Your task to perform on an android device: turn off location Image 0: 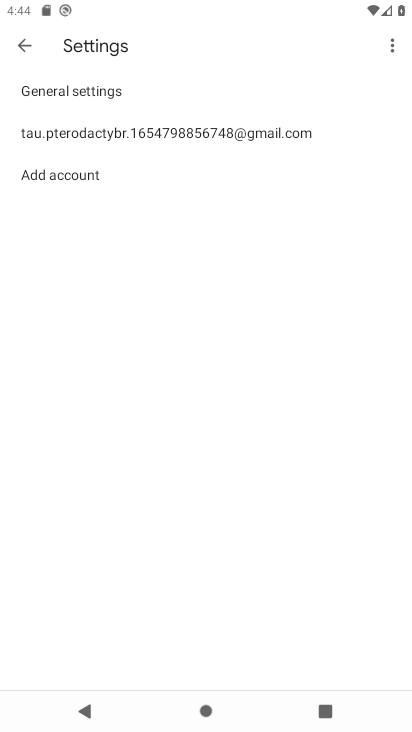
Step 0: click (27, 40)
Your task to perform on an android device: turn off location Image 1: 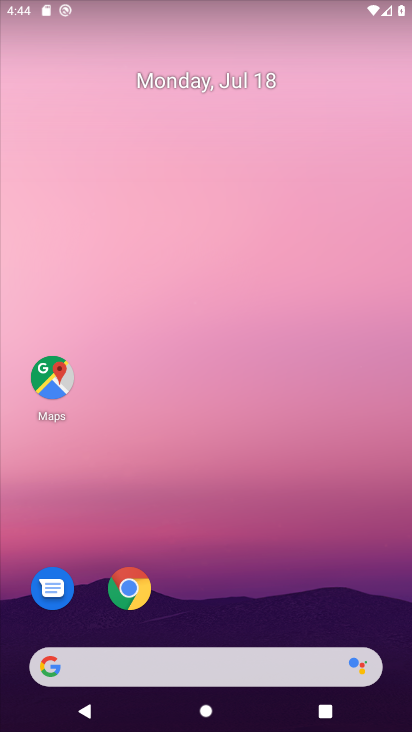
Step 1: drag from (233, 716) to (115, 131)
Your task to perform on an android device: turn off location Image 2: 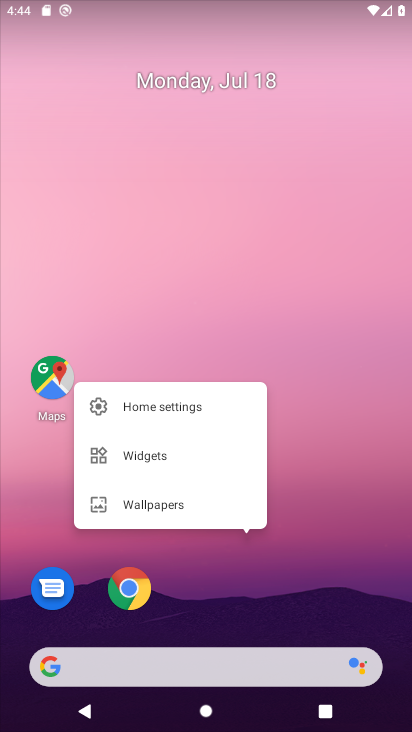
Step 2: click (178, 169)
Your task to perform on an android device: turn off location Image 3: 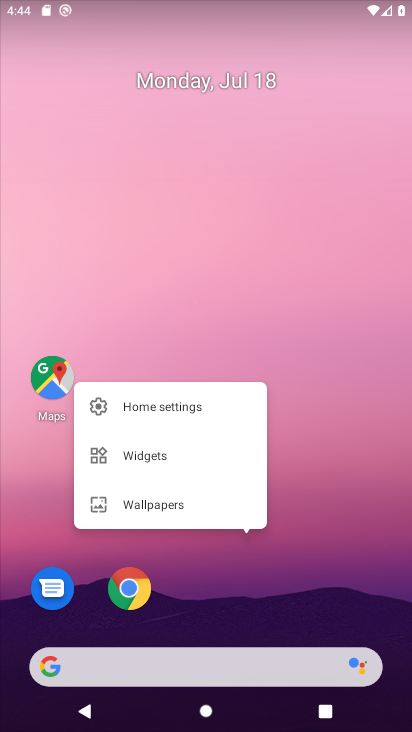
Step 3: click (235, 249)
Your task to perform on an android device: turn off location Image 4: 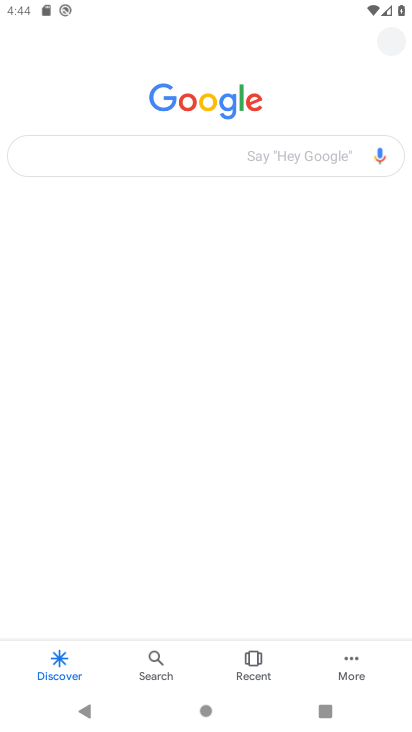
Step 4: press back button
Your task to perform on an android device: turn off location Image 5: 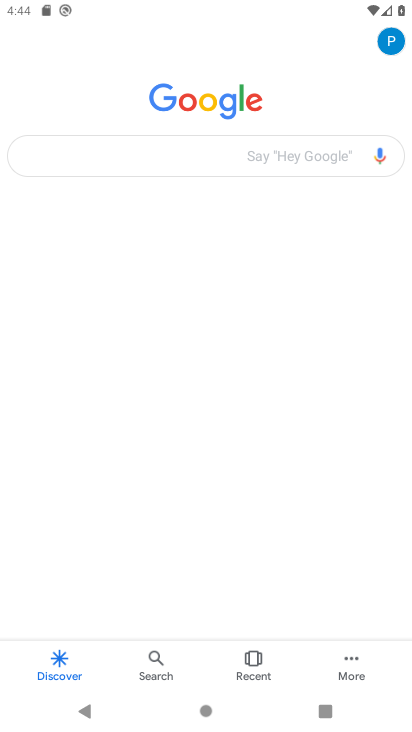
Step 5: press back button
Your task to perform on an android device: turn off location Image 6: 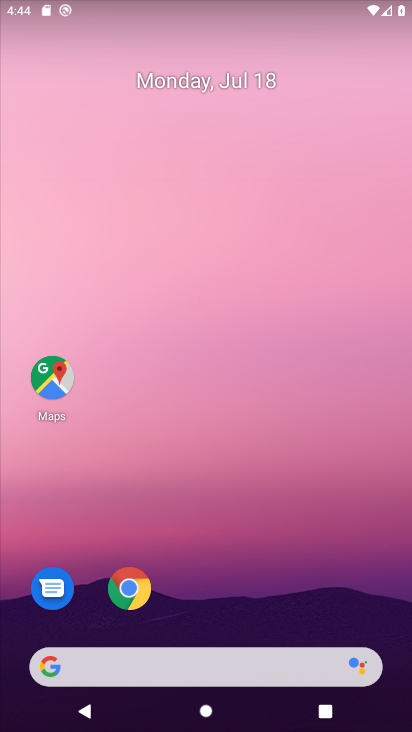
Step 6: press home button
Your task to perform on an android device: turn off location Image 7: 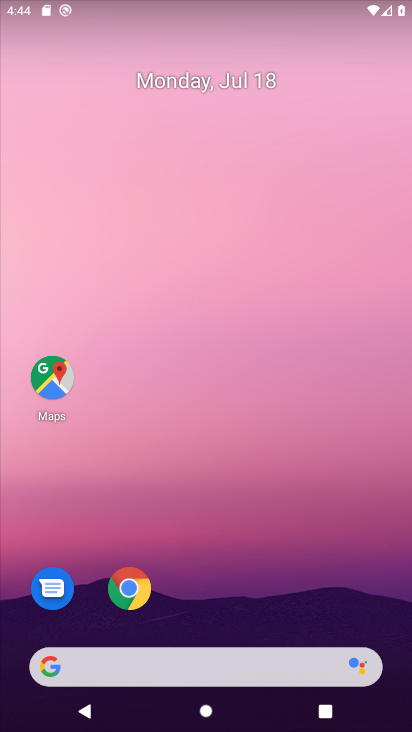
Step 7: click (238, 70)
Your task to perform on an android device: turn off location Image 8: 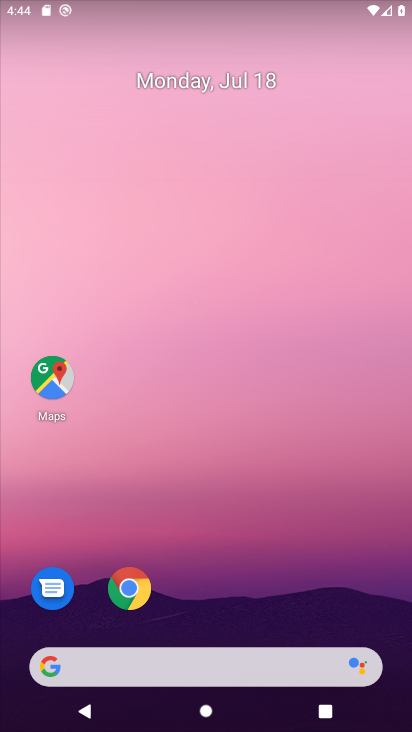
Step 8: drag from (233, 615) to (146, 132)
Your task to perform on an android device: turn off location Image 9: 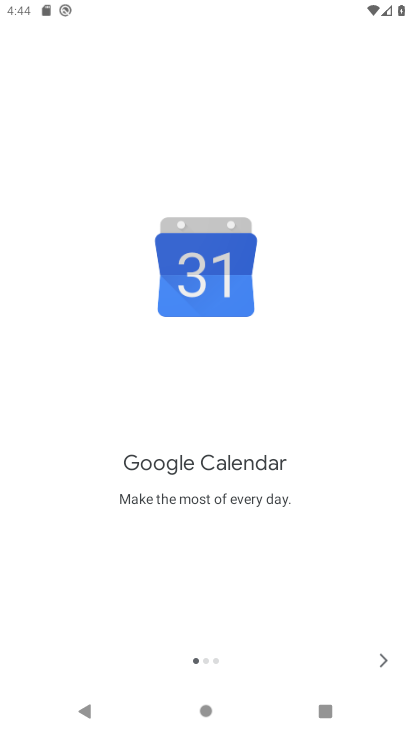
Step 9: click (379, 651)
Your task to perform on an android device: turn off location Image 10: 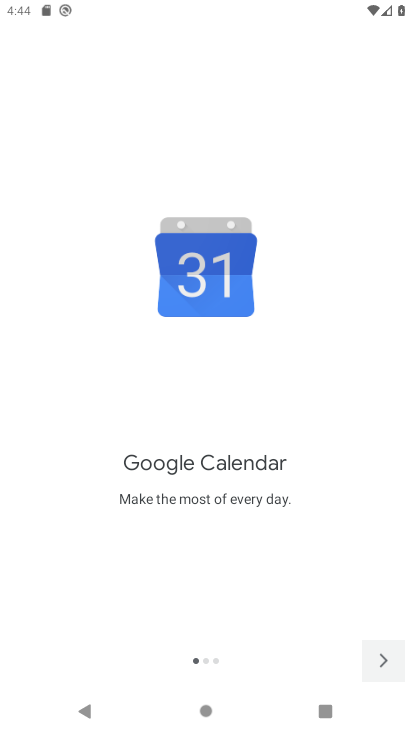
Step 10: click (384, 652)
Your task to perform on an android device: turn off location Image 11: 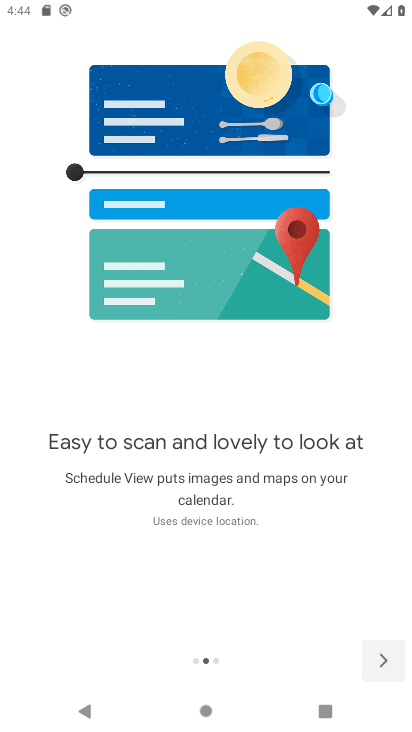
Step 11: click (384, 652)
Your task to perform on an android device: turn off location Image 12: 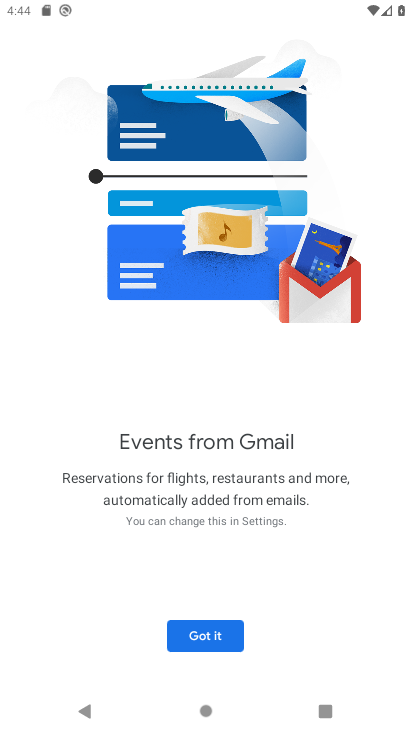
Step 12: click (384, 652)
Your task to perform on an android device: turn off location Image 13: 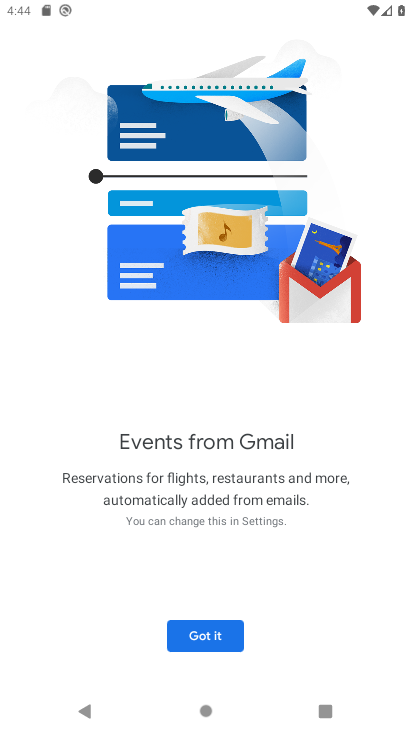
Step 13: click (384, 652)
Your task to perform on an android device: turn off location Image 14: 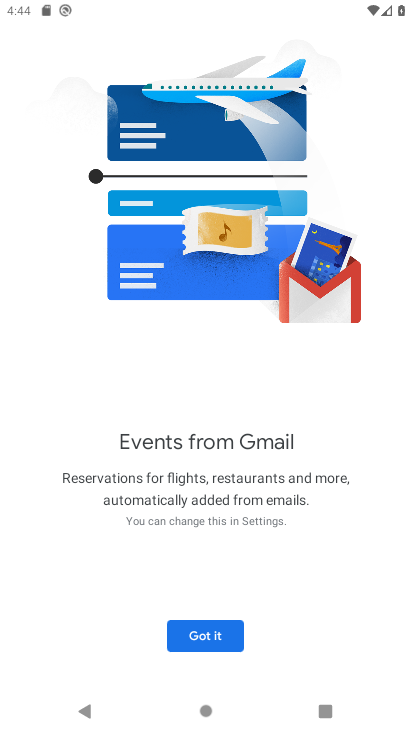
Step 14: click (222, 629)
Your task to perform on an android device: turn off location Image 15: 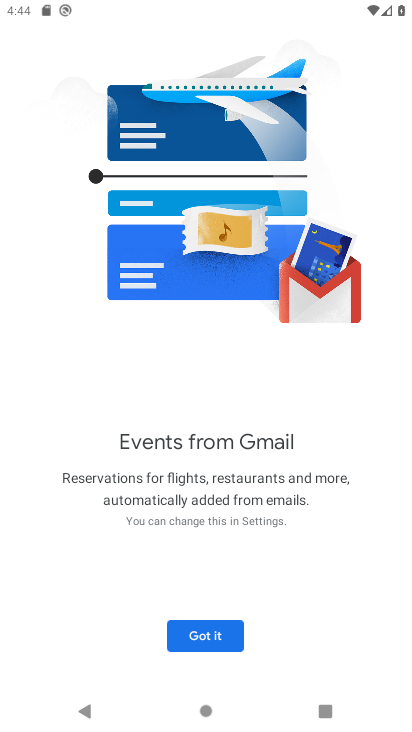
Step 15: click (210, 629)
Your task to perform on an android device: turn off location Image 16: 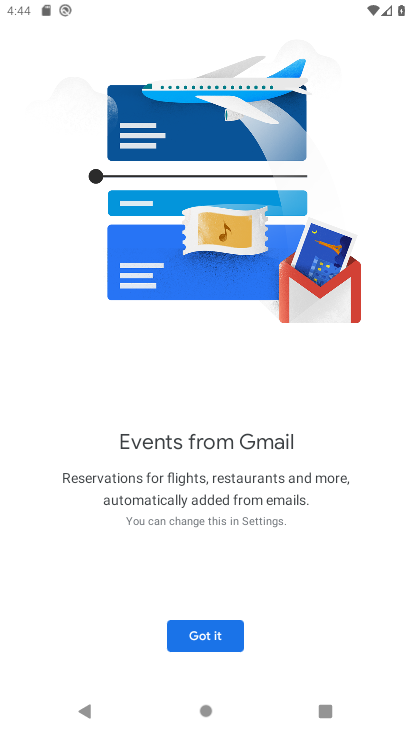
Step 16: click (210, 629)
Your task to perform on an android device: turn off location Image 17: 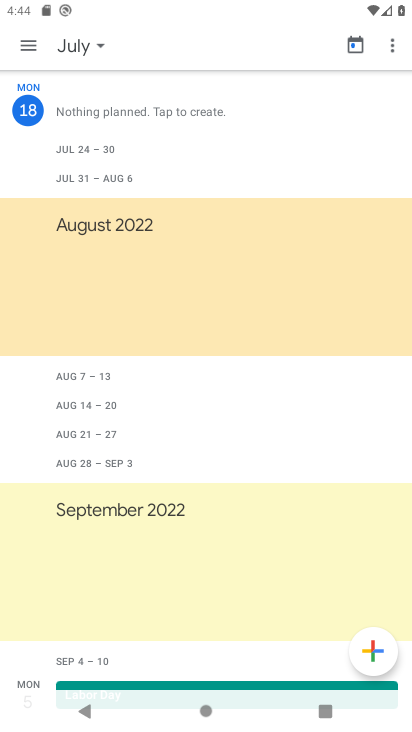
Step 17: press home button
Your task to perform on an android device: turn off location Image 18: 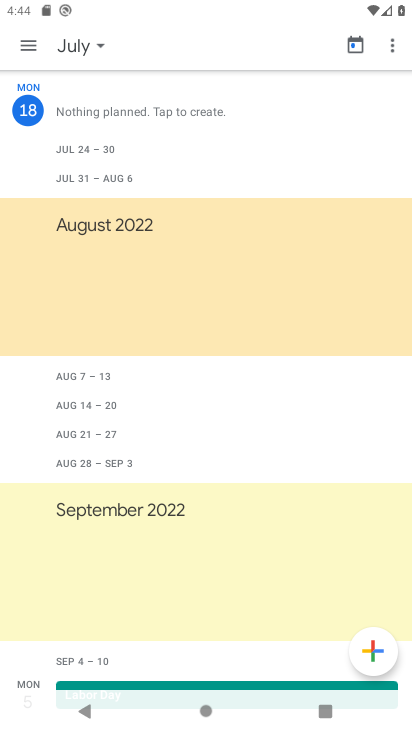
Step 18: press home button
Your task to perform on an android device: turn off location Image 19: 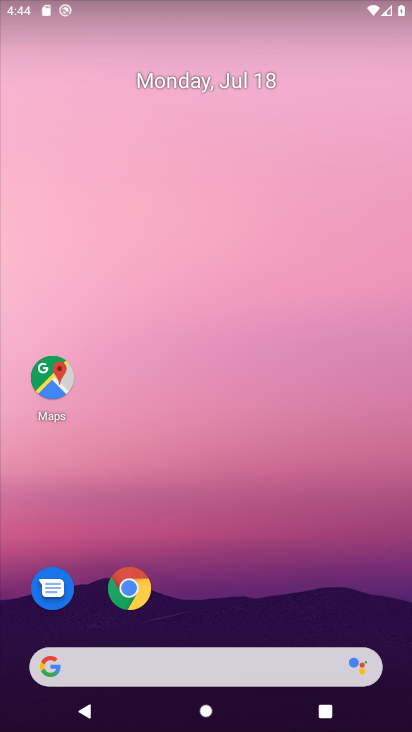
Step 19: press back button
Your task to perform on an android device: turn off location Image 20: 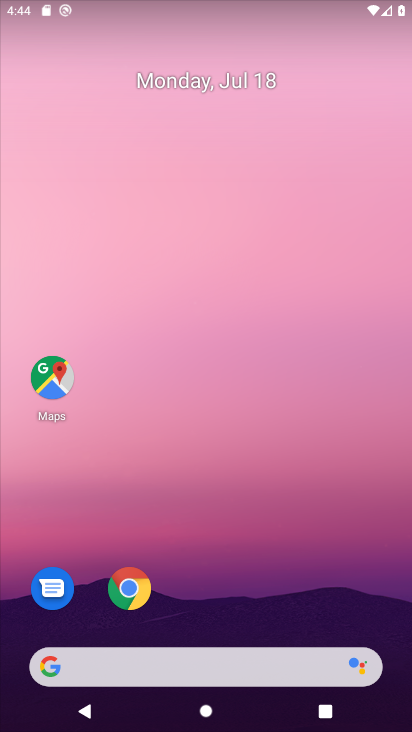
Step 20: drag from (230, 217) to (212, 59)
Your task to perform on an android device: turn off location Image 21: 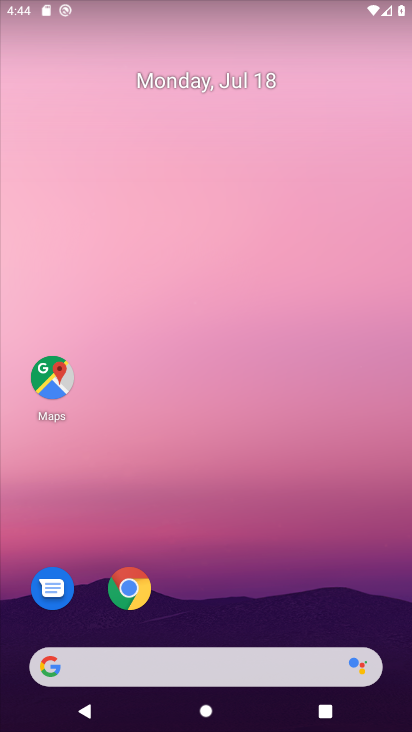
Step 21: drag from (222, 307) to (179, 27)
Your task to perform on an android device: turn off location Image 22: 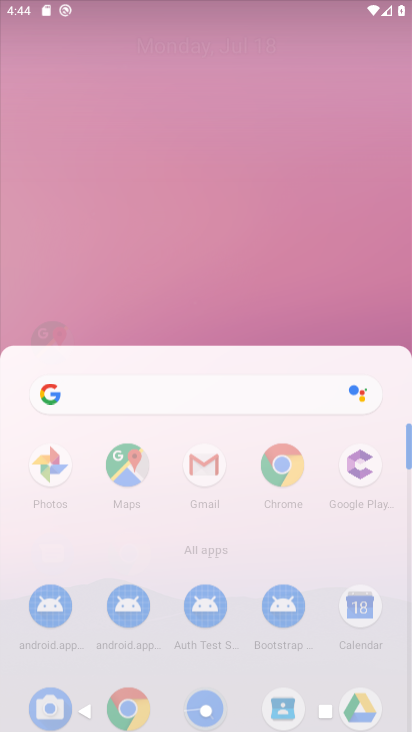
Step 22: click (226, 40)
Your task to perform on an android device: turn off location Image 23: 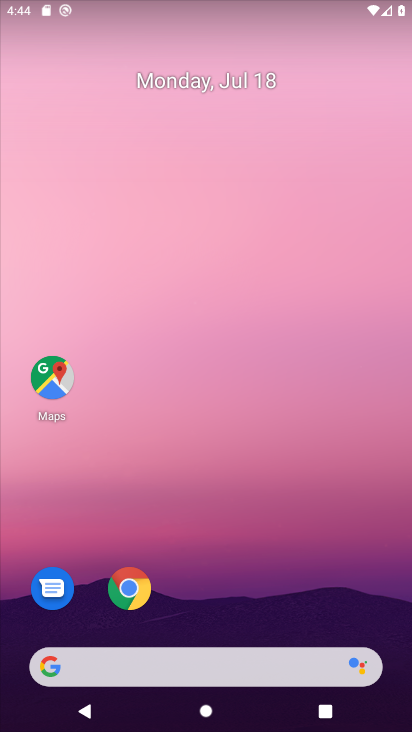
Step 23: drag from (256, 465) to (230, 16)
Your task to perform on an android device: turn off location Image 24: 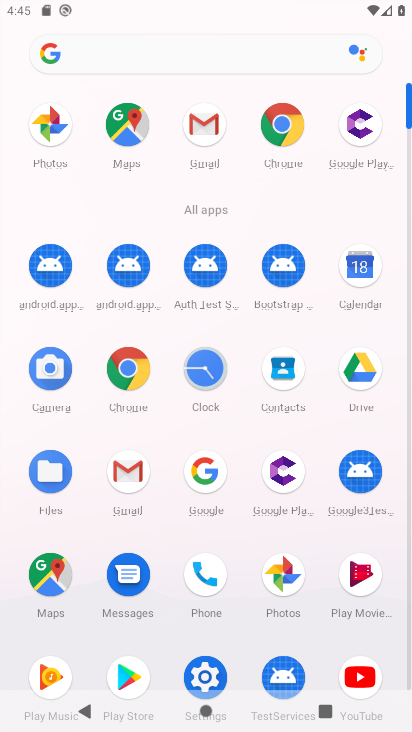
Step 24: click (195, 670)
Your task to perform on an android device: turn off location Image 25: 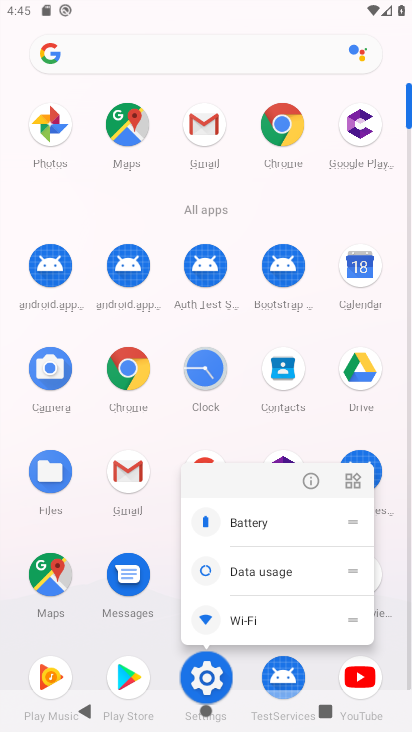
Step 25: click (198, 670)
Your task to perform on an android device: turn off location Image 26: 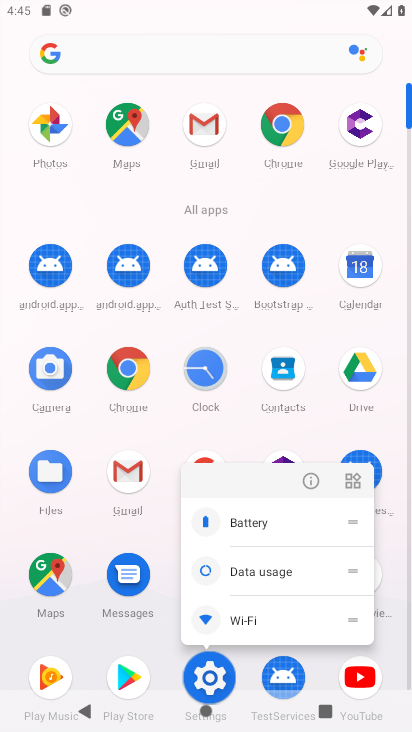
Step 26: click (200, 667)
Your task to perform on an android device: turn off location Image 27: 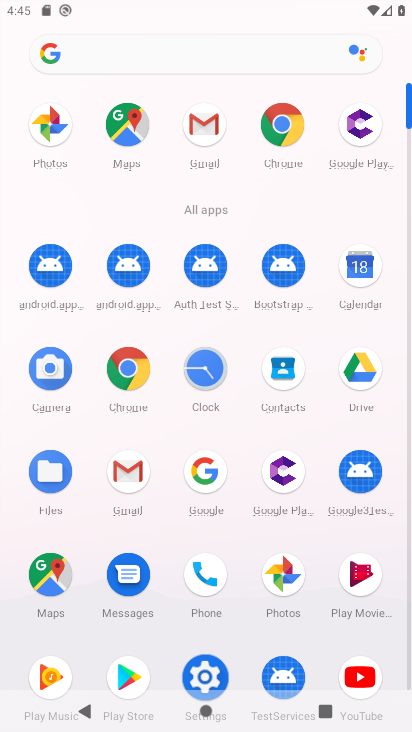
Step 27: click (201, 666)
Your task to perform on an android device: turn off location Image 28: 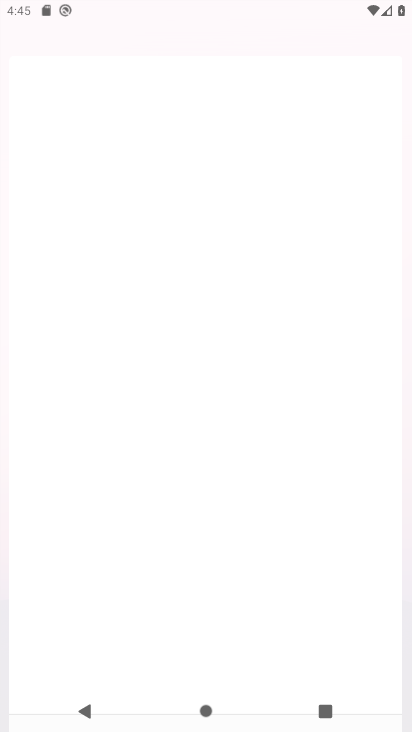
Step 28: click (205, 649)
Your task to perform on an android device: turn off location Image 29: 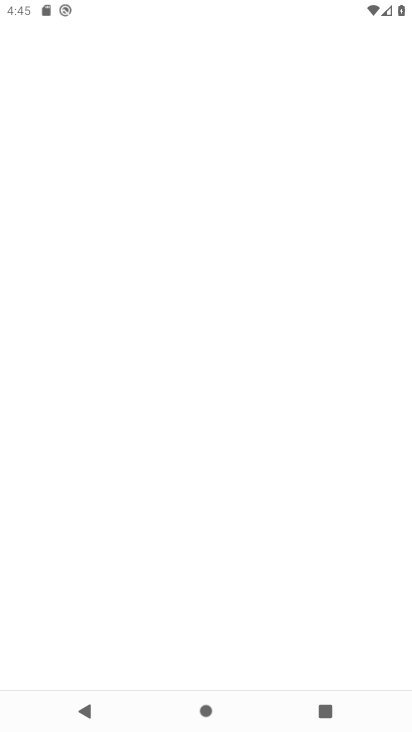
Step 29: click (203, 656)
Your task to perform on an android device: turn off location Image 30: 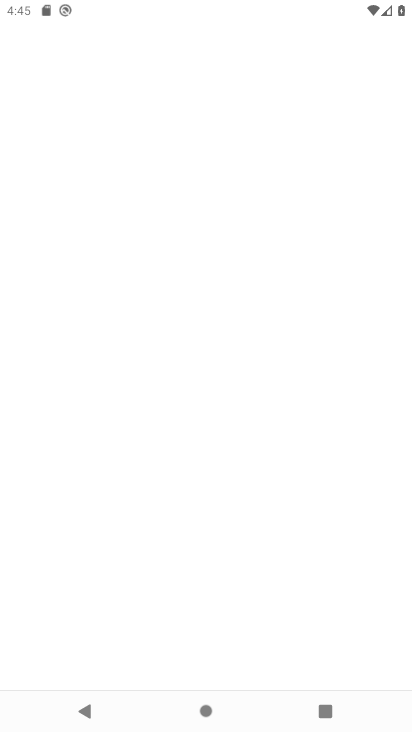
Step 30: click (203, 656)
Your task to perform on an android device: turn off location Image 31: 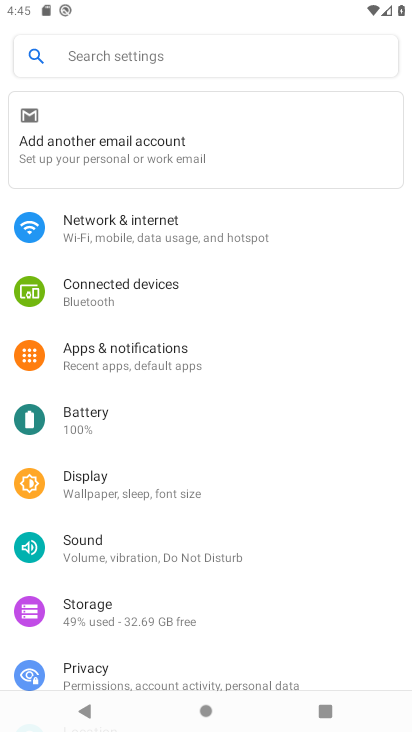
Step 31: drag from (66, 610) to (83, 183)
Your task to perform on an android device: turn off location Image 32: 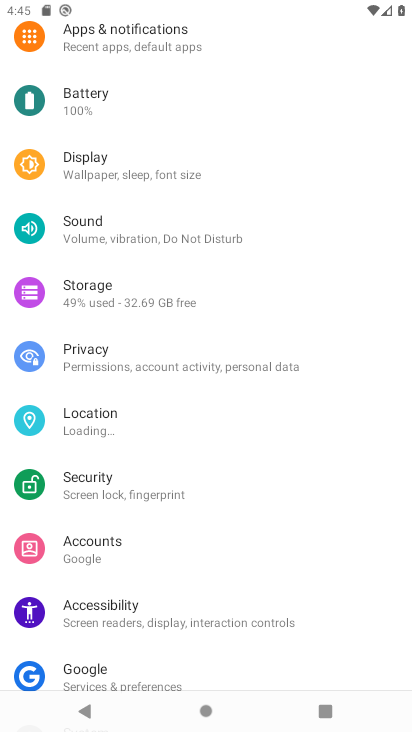
Step 32: drag from (153, 456) to (153, 308)
Your task to perform on an android device: turn off location Image 33: 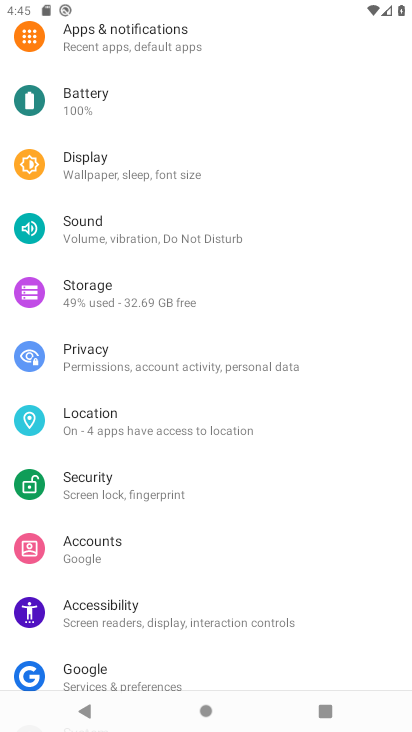
Step 33: click (97, 418)
Your task to perform on an android device: turn off location Image 34: 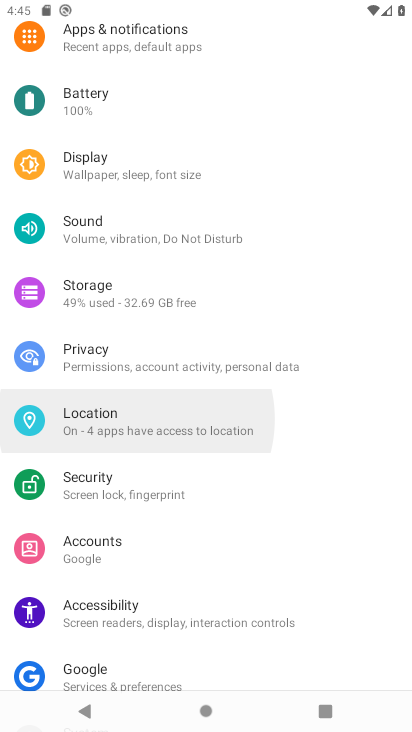
Step 34: click (107, 428)
Your task to perform on an android device: turn off location Image 35: 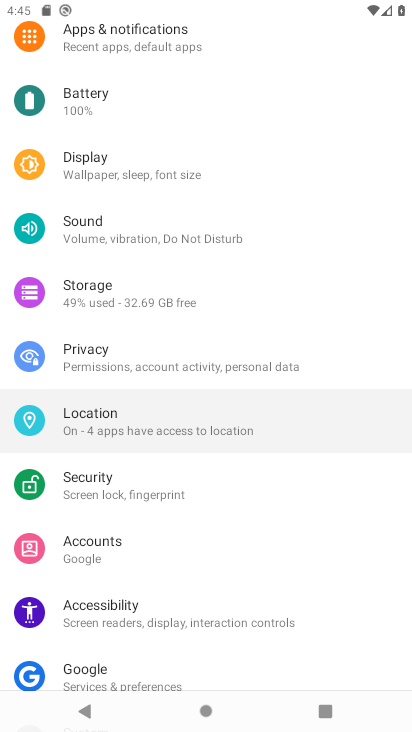
Step 35: click (117, 434)
Your task to perform on an android device: turn off location Image 36: 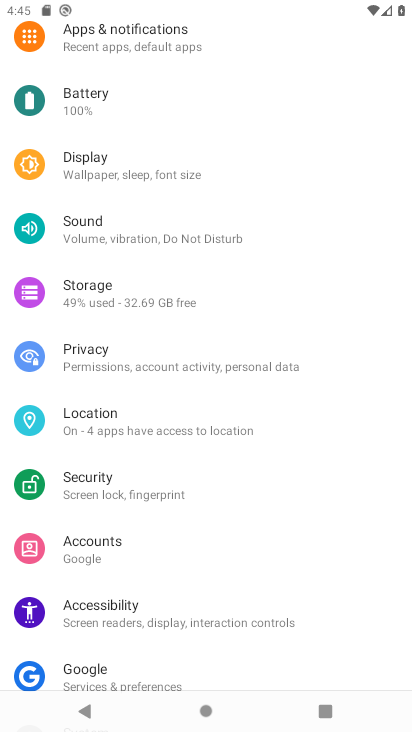
Step 36: click (128, 427)
Your task to perform on an android device: turn off location Image 37: 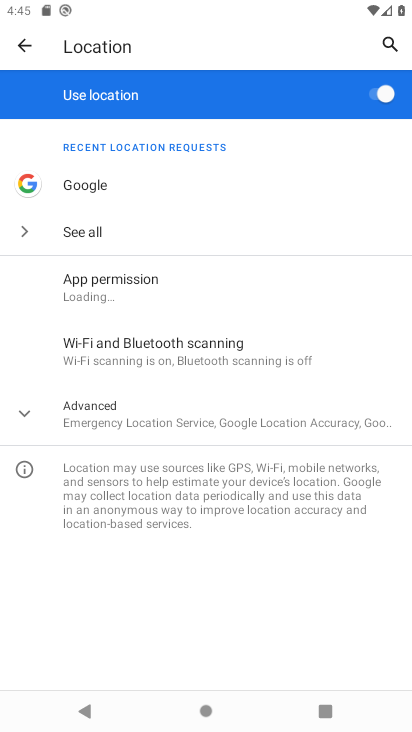
Step 37: click (387, 93)
Your task to perform on an android device: turn off location Image 38: 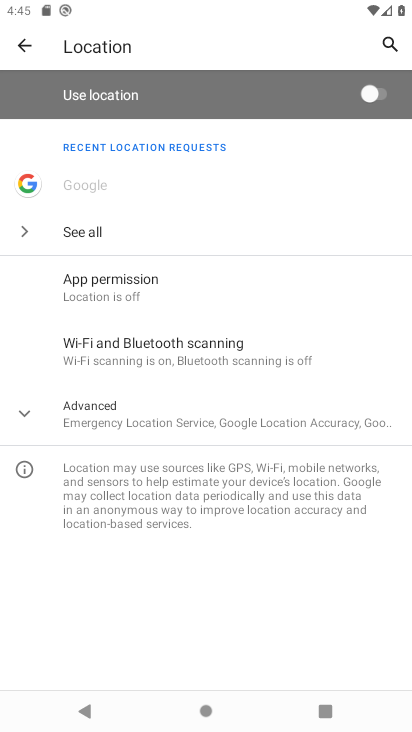
Step 38: task complete